Your task to perform on an android device: Open Google Chrome and click the shortcut for Amazon.com Image 0: 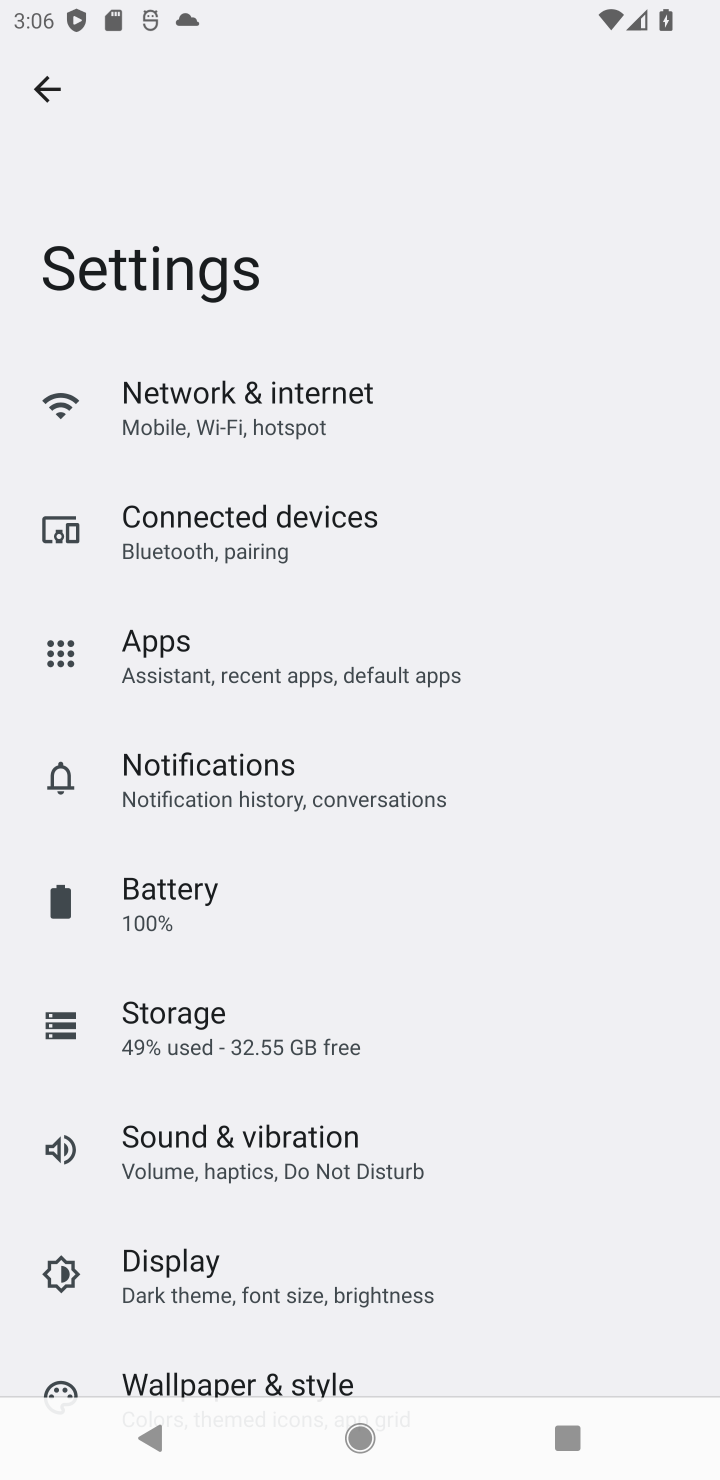
Step 0: press home button
Your task to perform on an android device: Open Google Chrome and click the shortcut for Amazon.com Image 1: 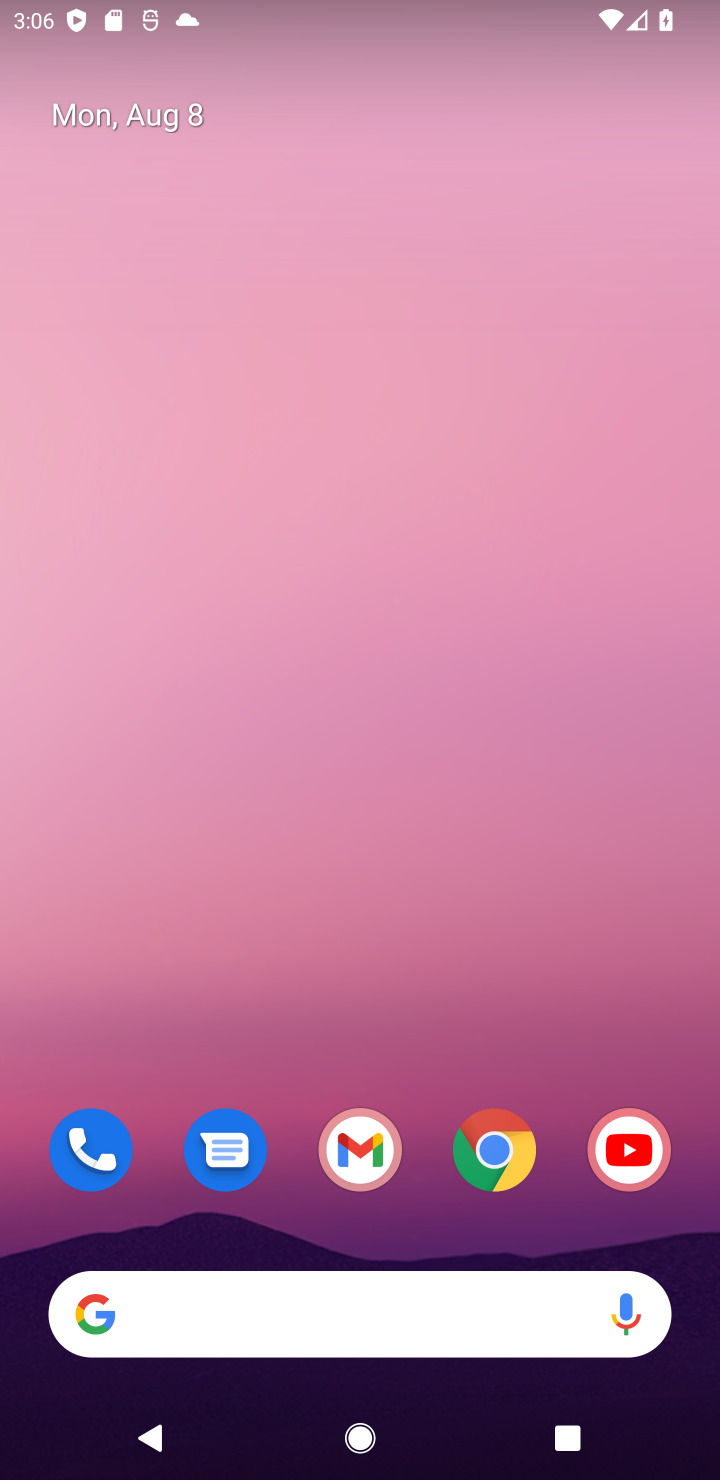
Step 1: click (493, 1150)
Your task to perform on an android device: Open Google Chrome and click the shortcut for Amazon.com Image 2: 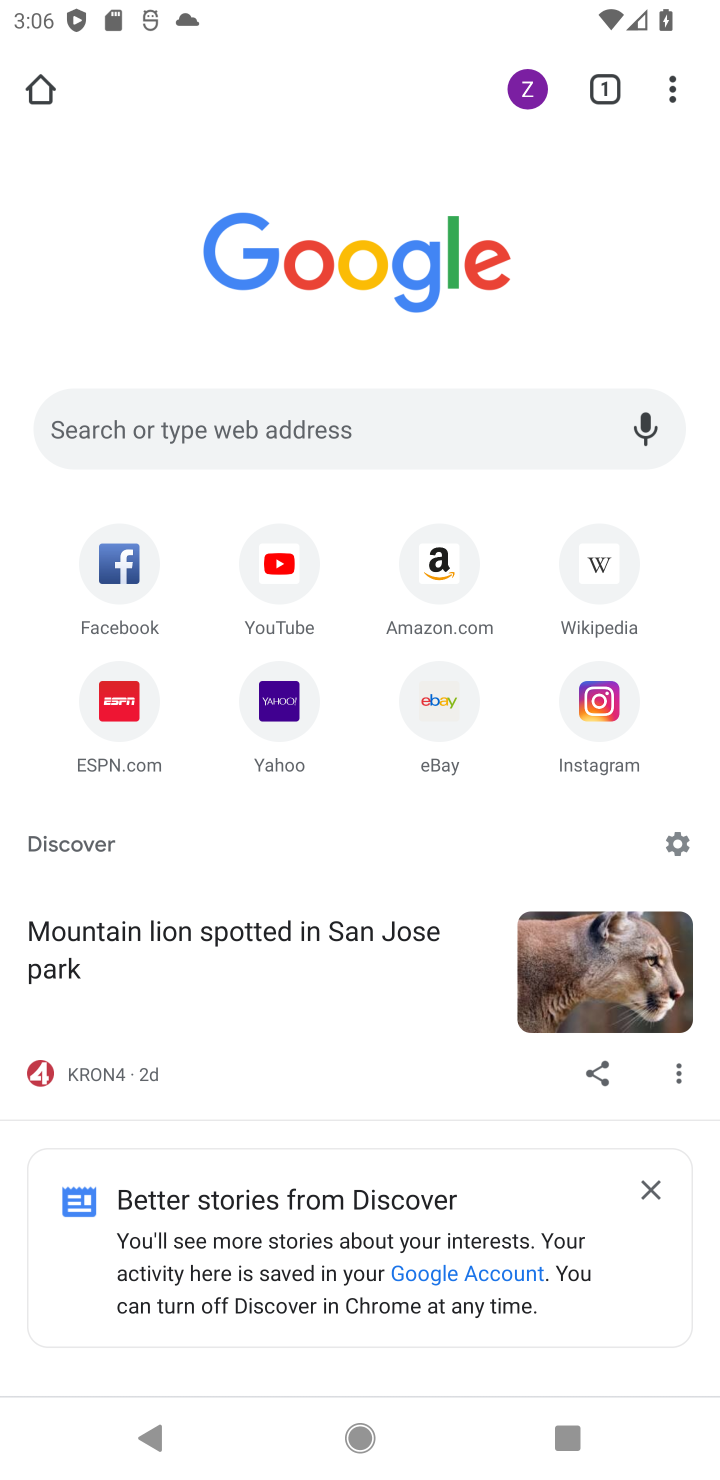
Step 2: click (298, 1088)
Your task to perform on an android device: Open Google Chrome and click the shortcut for Amazon.com Image 3: 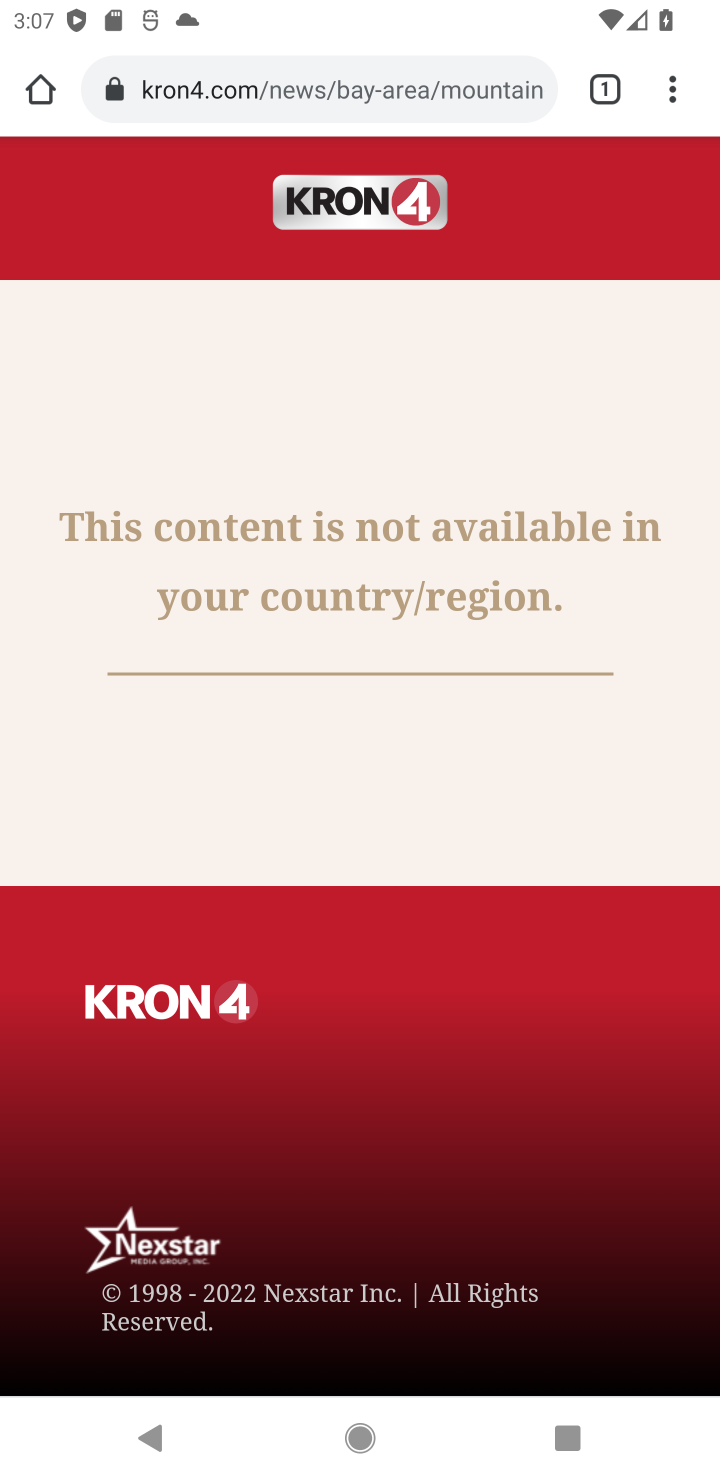
Step 3: click (31, 90)
Your task to perform on an android device: Open Google Chrome and click the shortcut for Amazon.com Image 4: 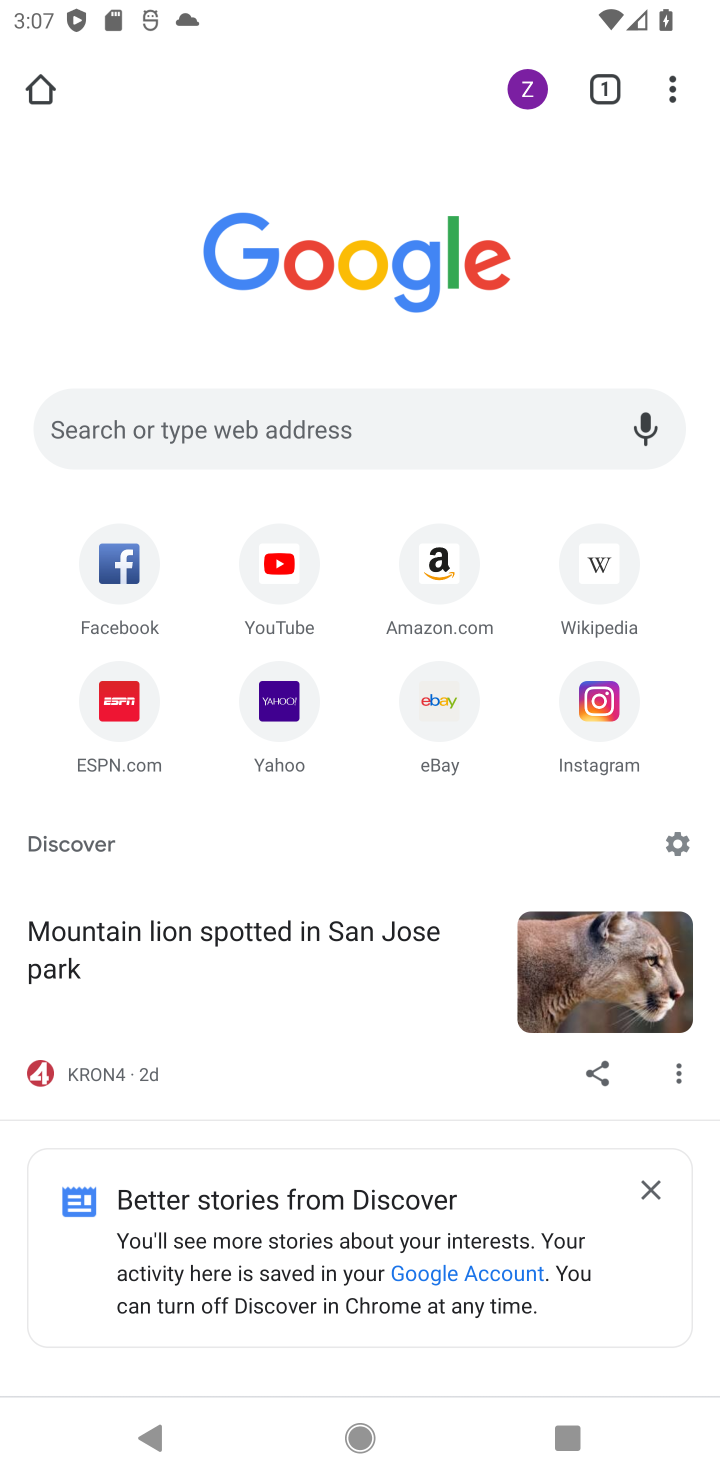
Step 4: click (421, 585)
Your task to perform on an android device: Open Google Chrome and click the shortcut for Amazon.com Image 5: 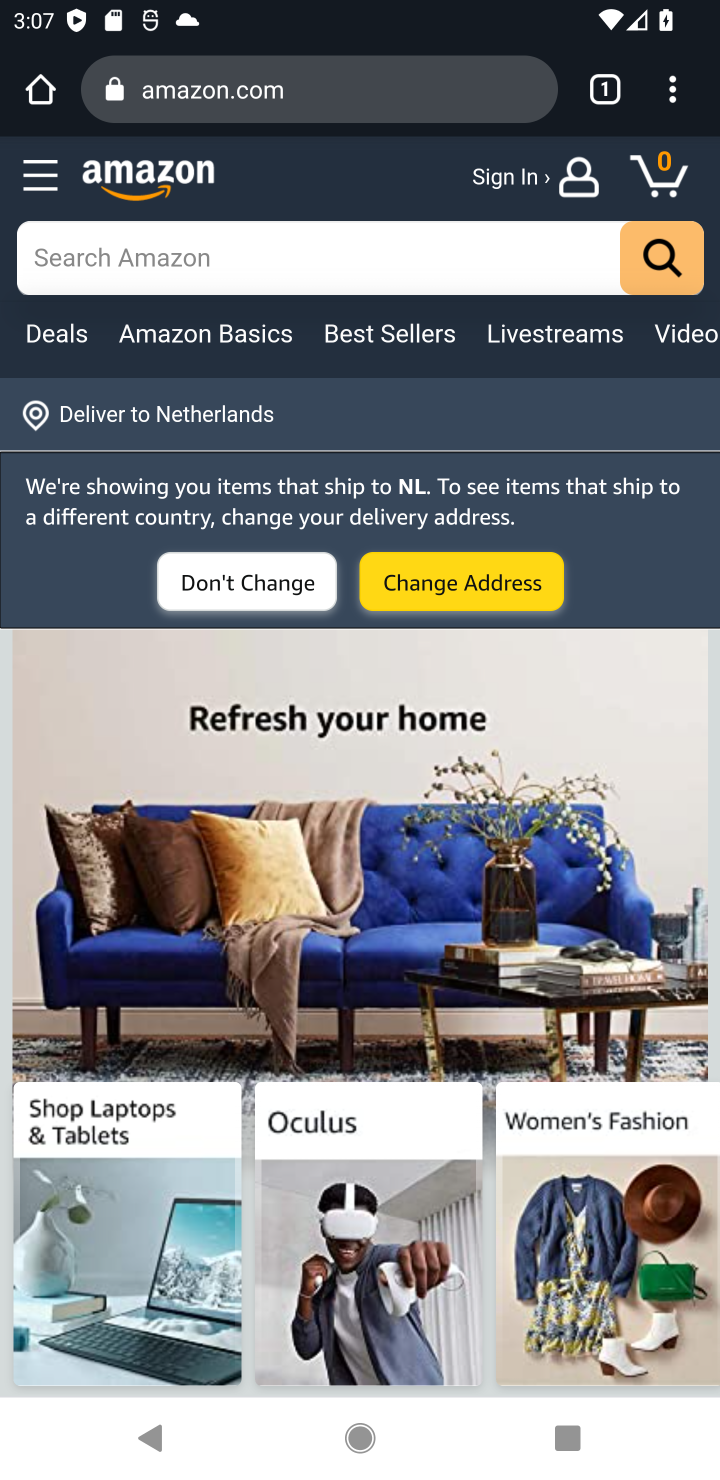
Step 5: task complete